Your task to perform on an android device: turn pop-ups off in chrome Image 0: 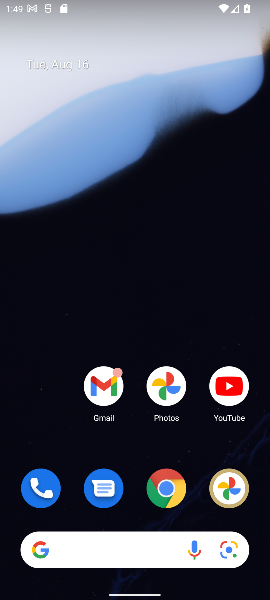
Step 0: drag from (189, 297) to (214, 131)
Your task to perform on an android device: turn pop-ups off in chrome Image 1: 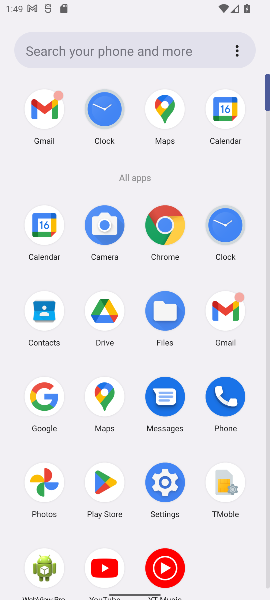
Step 1: task complete